Your task to perform on an android device: visit the assistant section in the google photos Image 0: 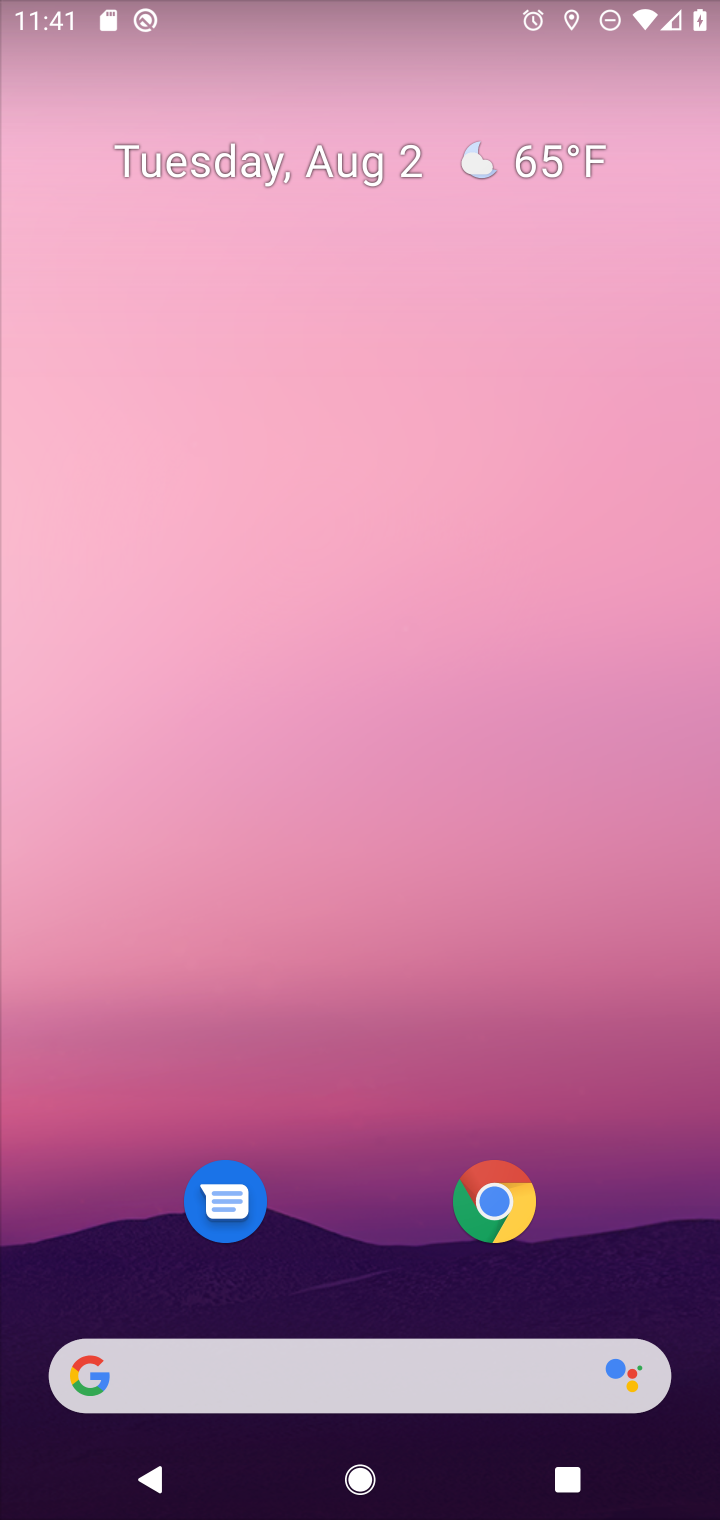
Step 0: press home button
Your task to perform on an android device: visit the assistant section in the google photos Image 1: 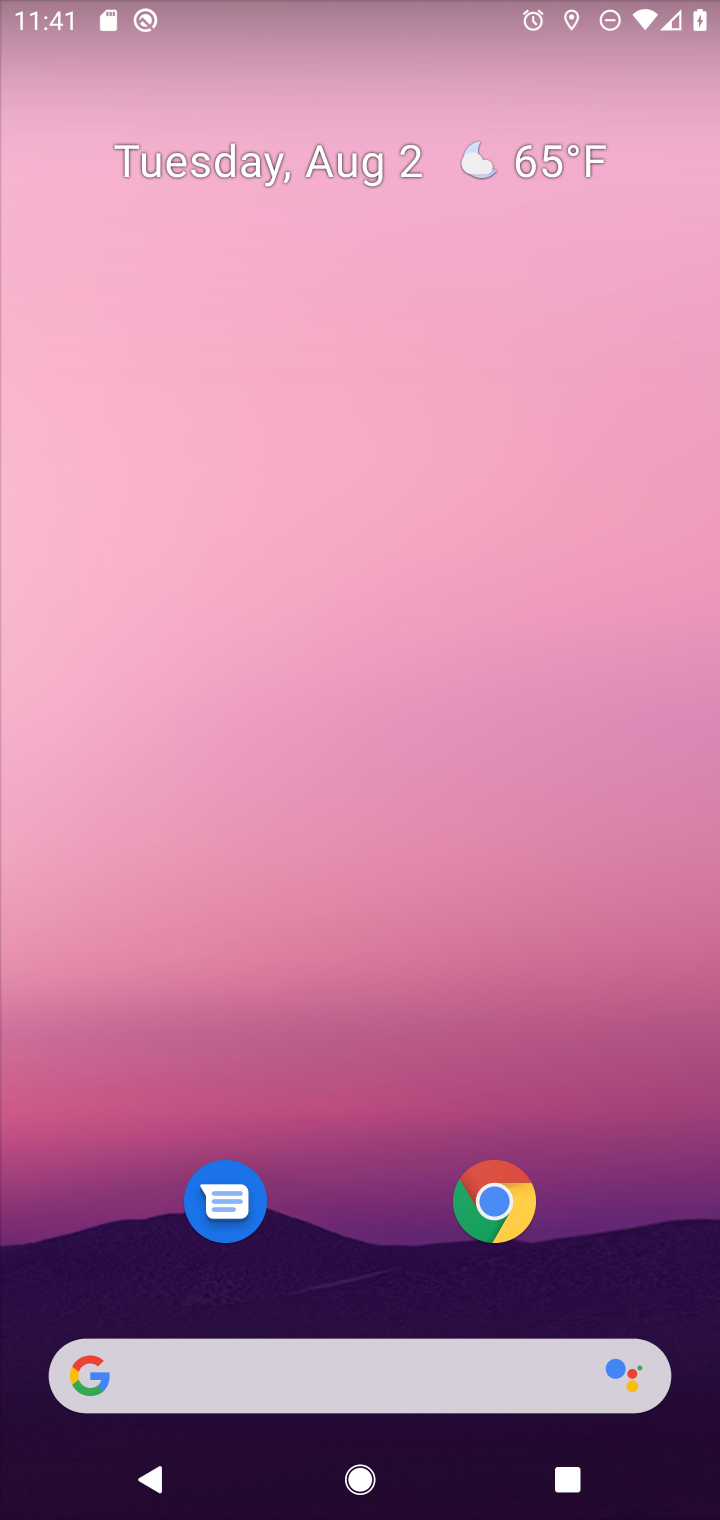
Step 1: click (483, 1226)
Your task to perform on an android device: visit the assistant section in the google photos Image 2: 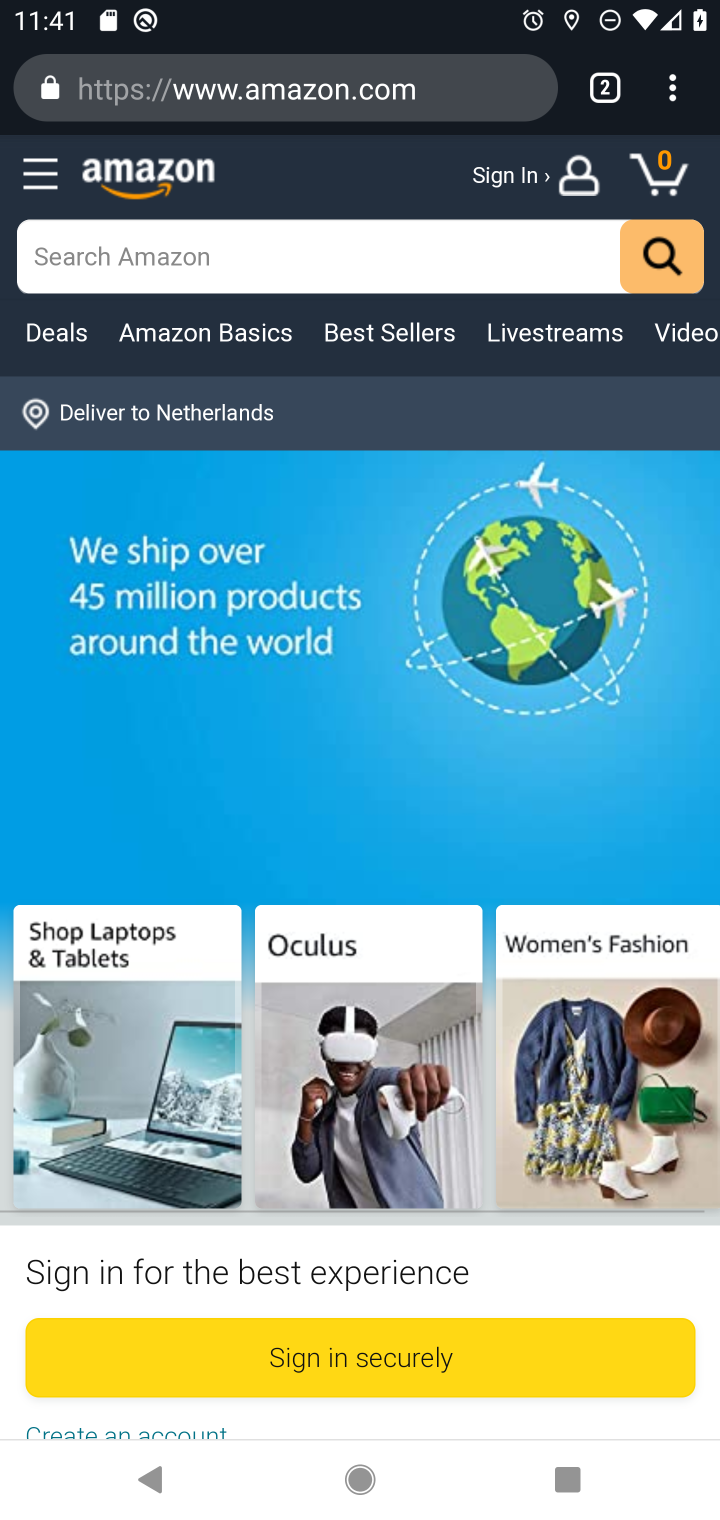
Step 2: press home button
Your task to perform on an android device: visit the assistant section in the google photos Image 3: 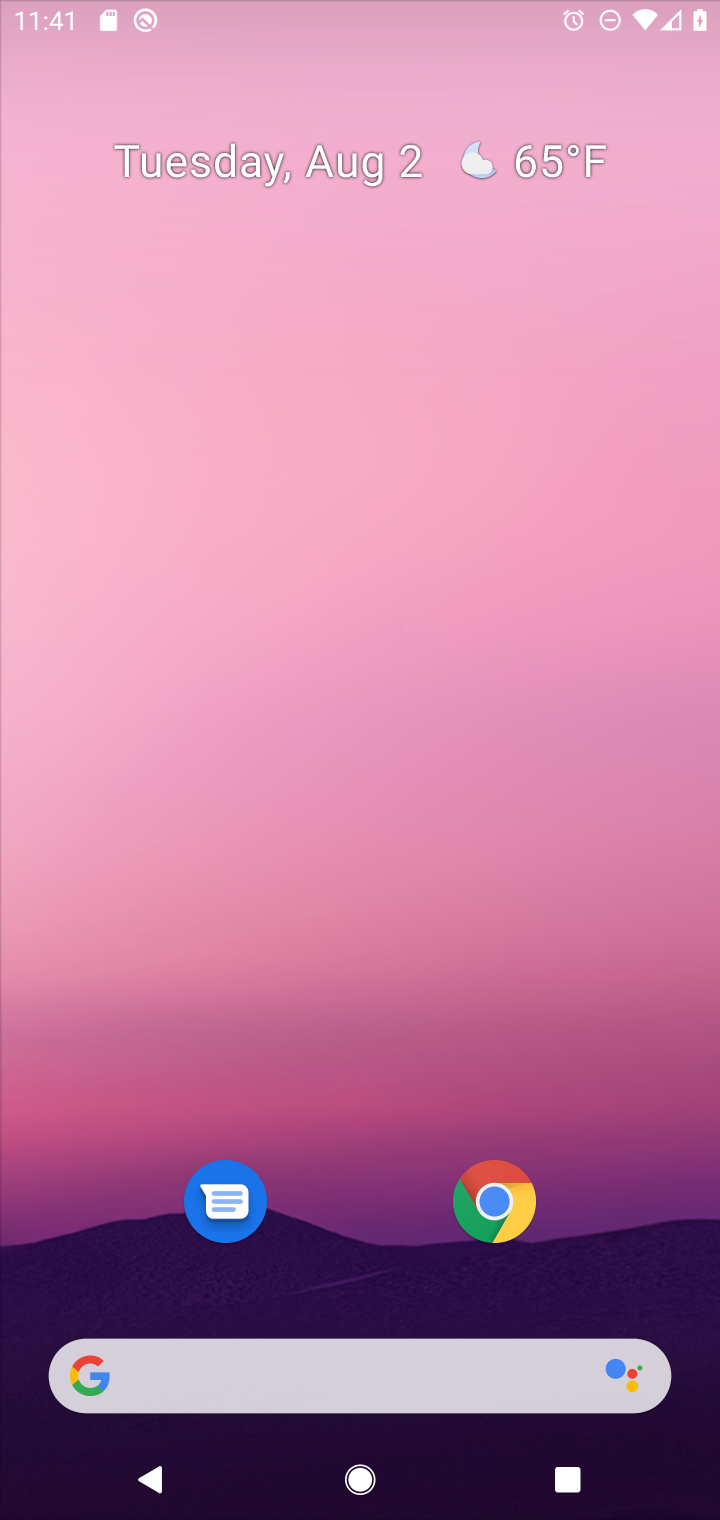
Step 3: drag from (318, 1314) to (279, 115)
Your task to perform on an android device: visit the assistant section in the google photos Image 4: 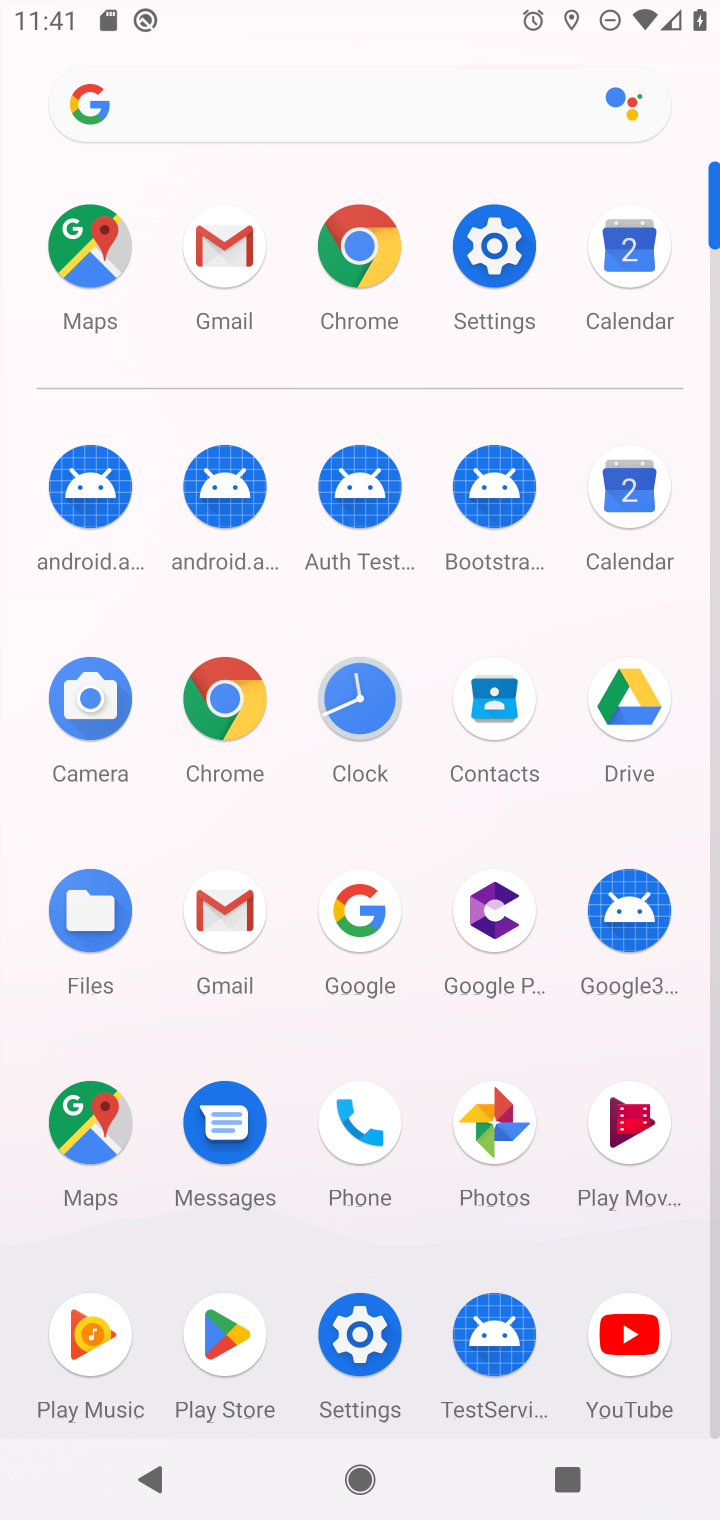
Step 4: click (501, 1131)
Your task to perform on an android device: visit the assistant section in the google photos Image 5: 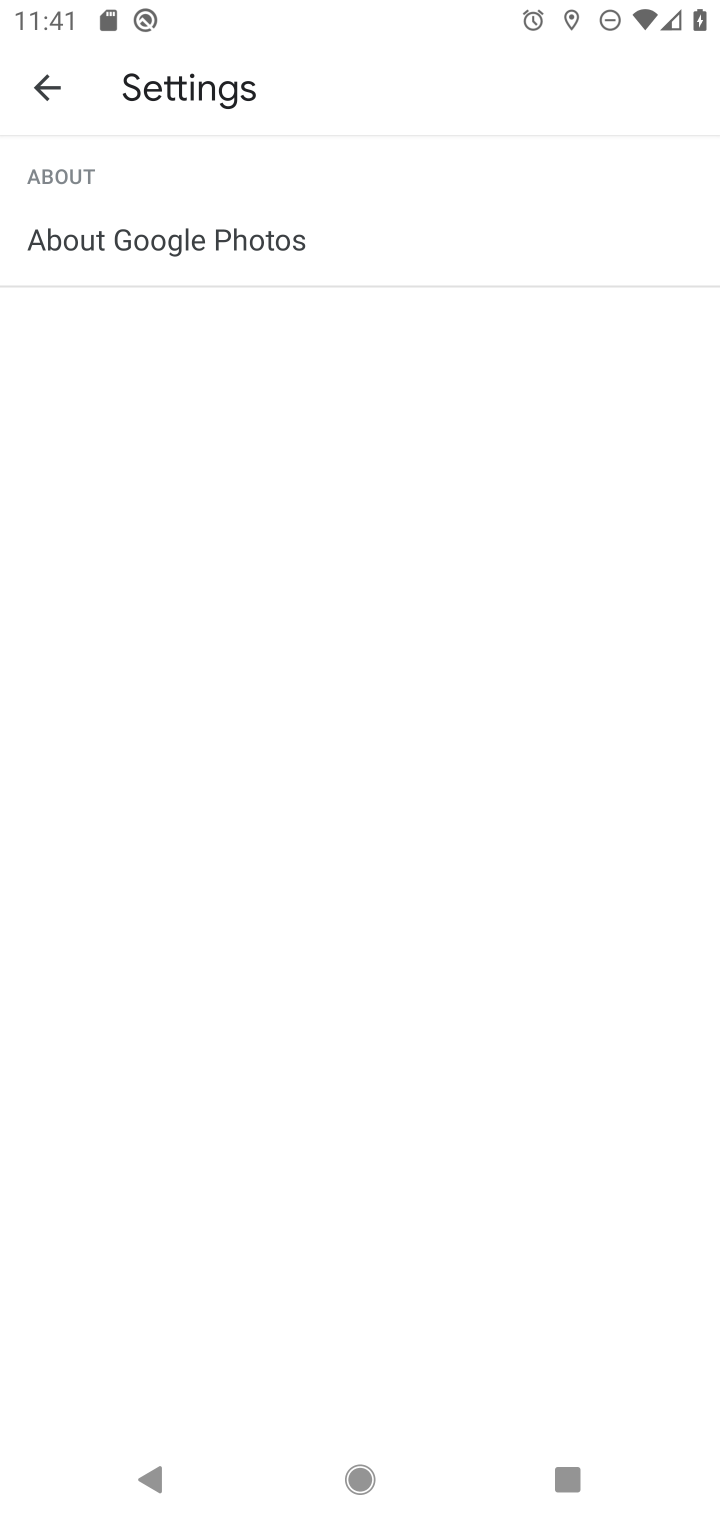
Step 5: click (52, 84)
Your task to perform on an android device: visit the assistant section in the google photos Image 6: 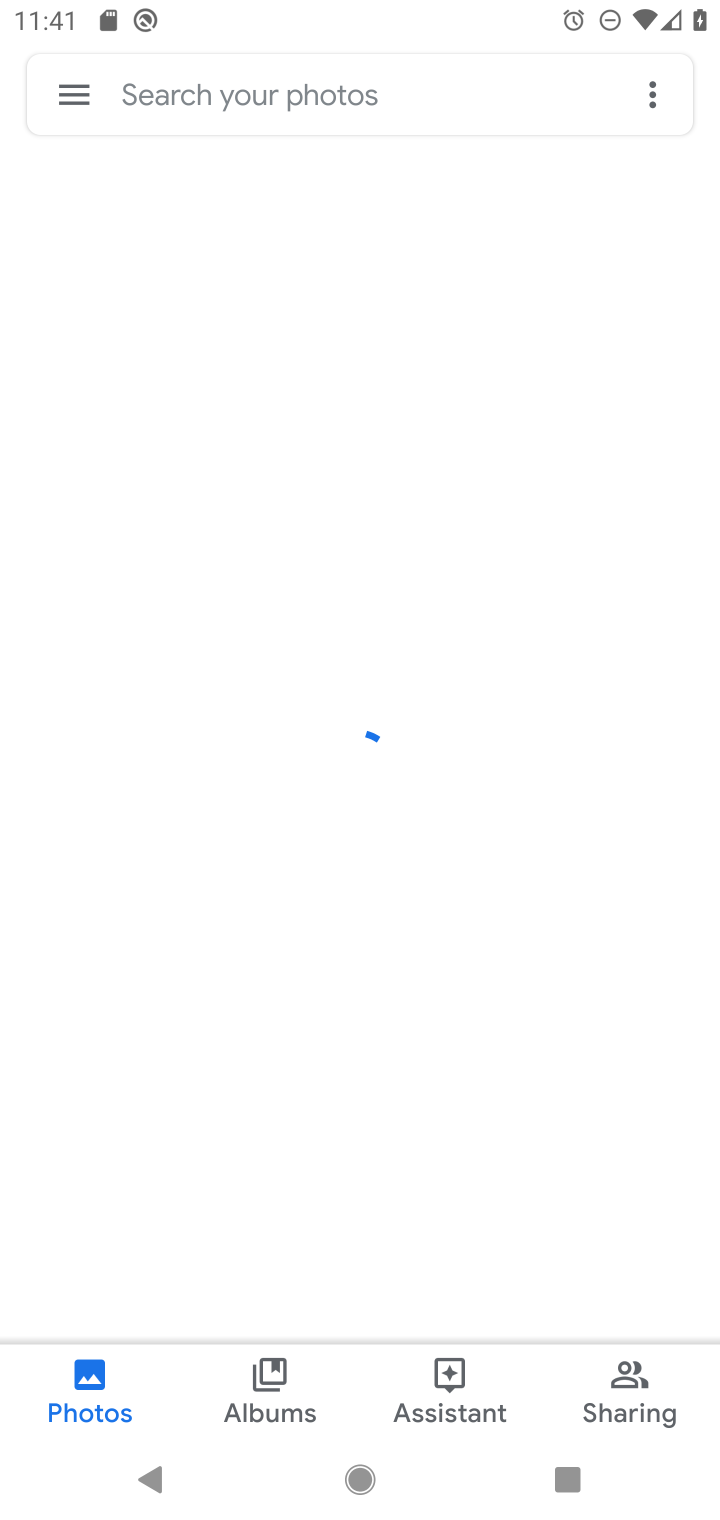
Step 6: click (430, 1388)
Your task to perform on an android device: visit the assistant section in the google photos Image 7: 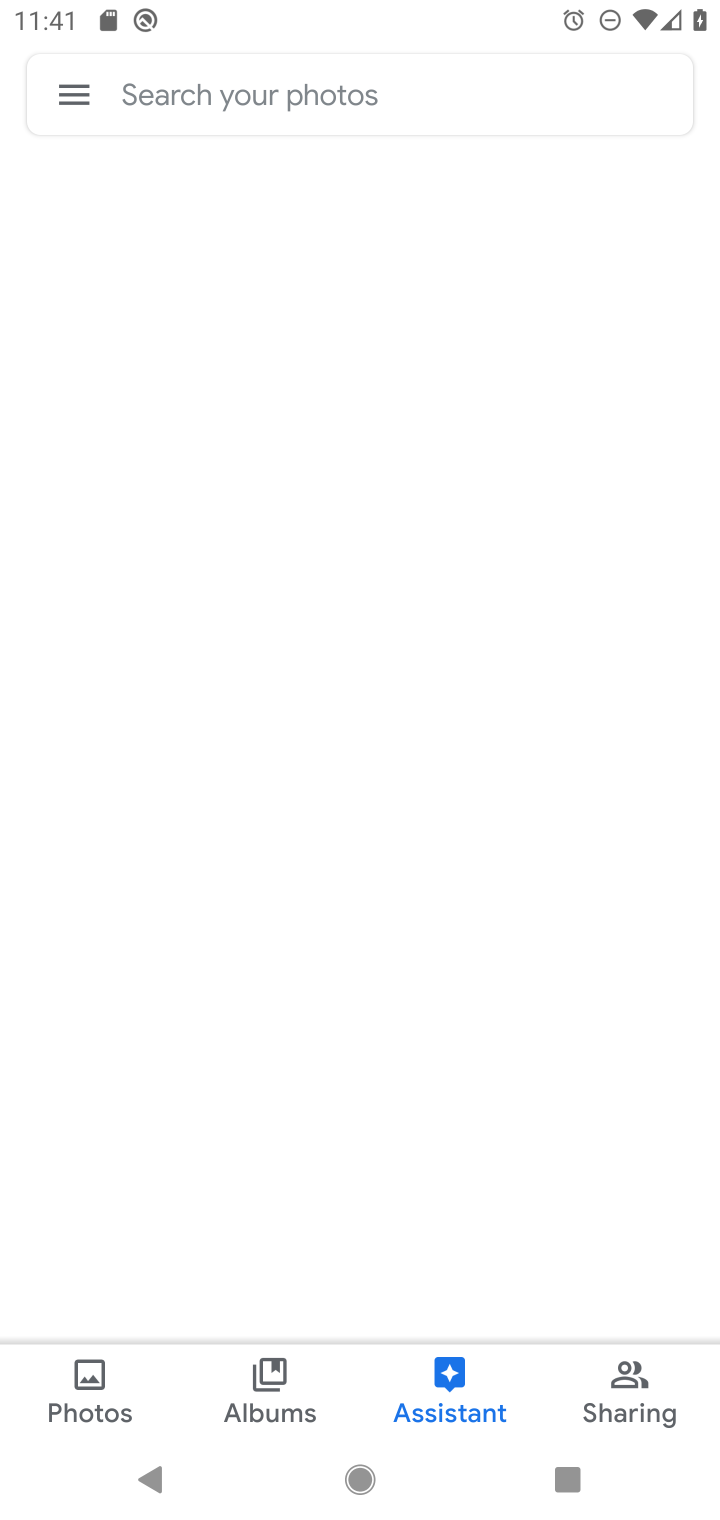
Step 7: task complete